Your task to perform on an android device: Go to CNN.com Image 0: 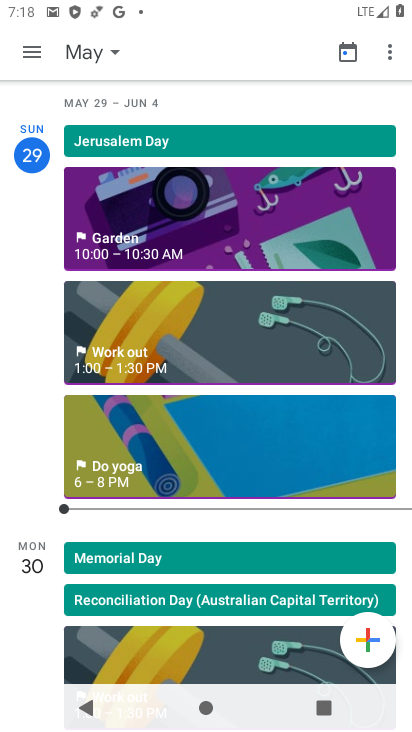
Step 0: press home button
Your task to perform on an android device: Go to CNN.com Image 1: 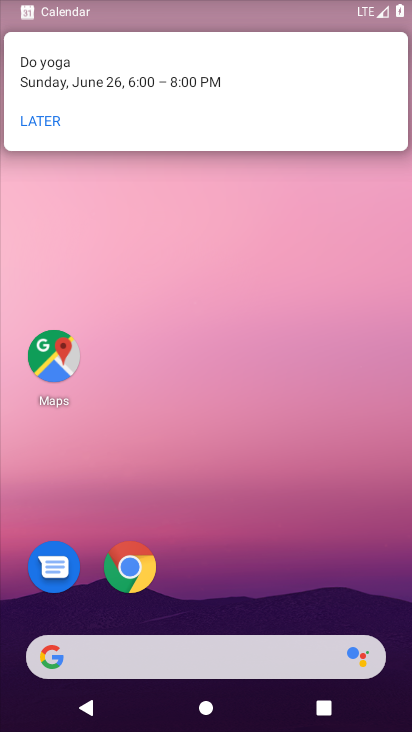
Step 1: click (120, 556)
Your task to perform on an android device: Go to CNN.com Image 2: 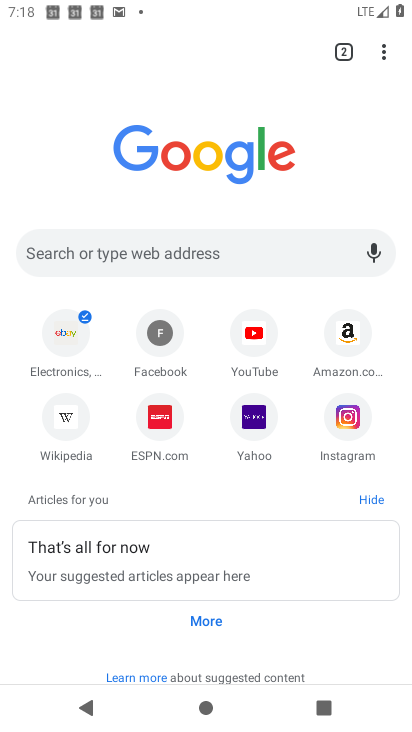
Step 2: click (161, 246)
Your task to perform on an android device: Go to CNN.com Image 3: 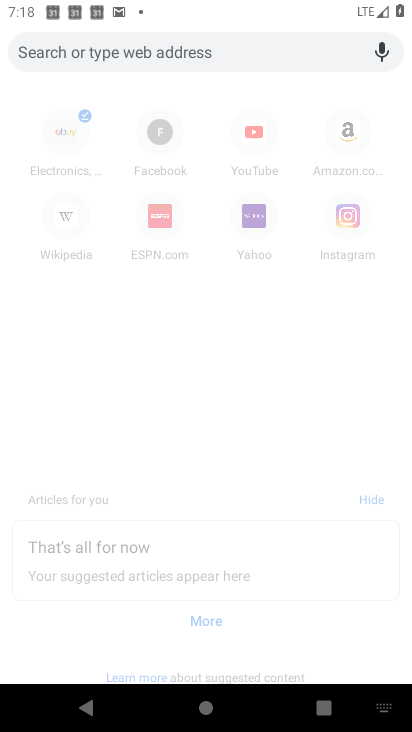
Step 3: type "CNN.com"
Your task to perform on an android device: Go to CNN.com Image 4: 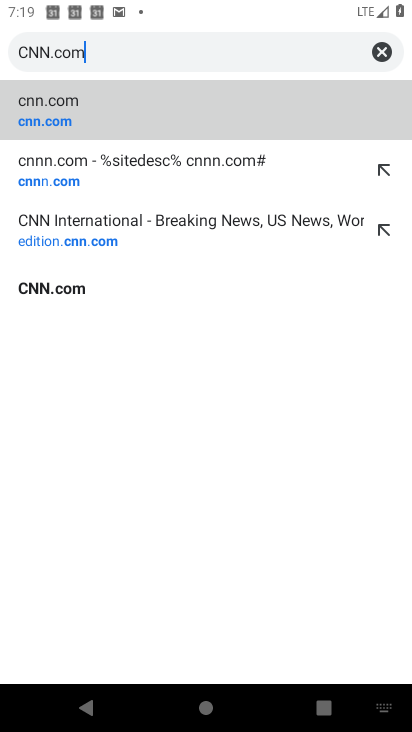
Step 4: click (37, 94)
Your task to perform on an android device: Go to CNN.com Image 5: 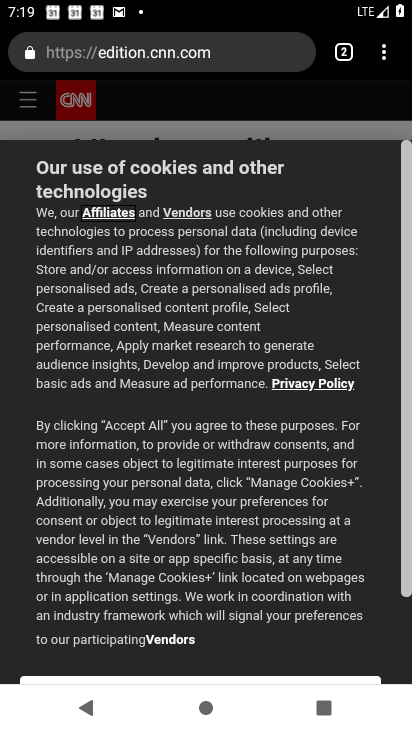
Step 5: task complete